Your task to perform on an android device: Open sound settings Image 0: 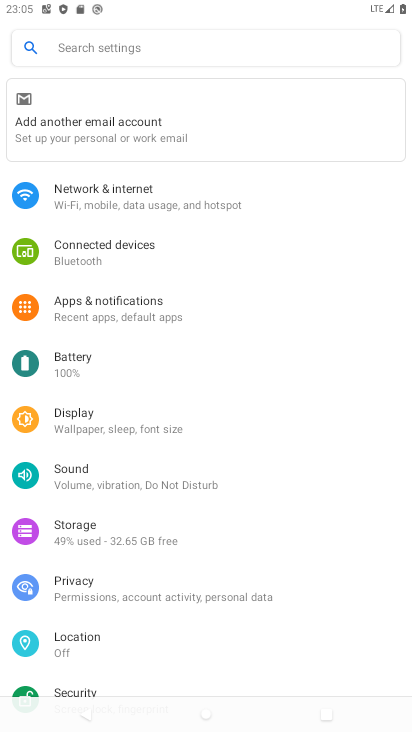
Step 0: click (95, 488)
Your task to perform on an android device: Open sound settings Image 1: 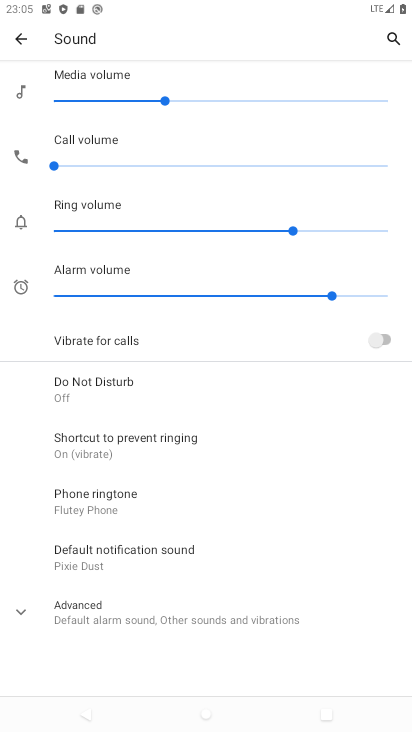
Step 1: task complete